Your task to perform on an android device: clear history in the chrome app Image 0: 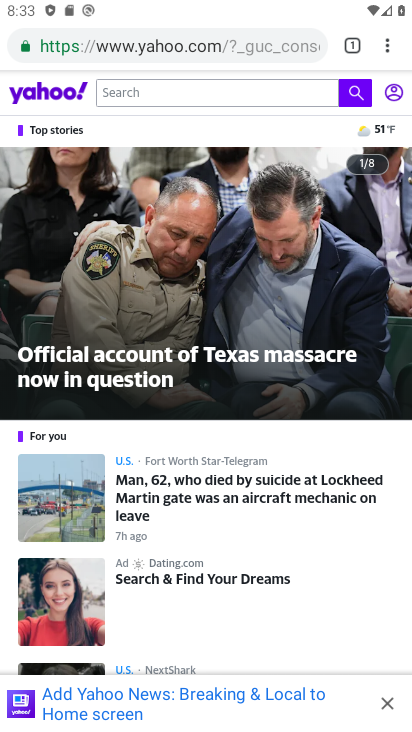
Step 0: press back button
Your task to perform on an android device: clear history in the chrome app Image 1: 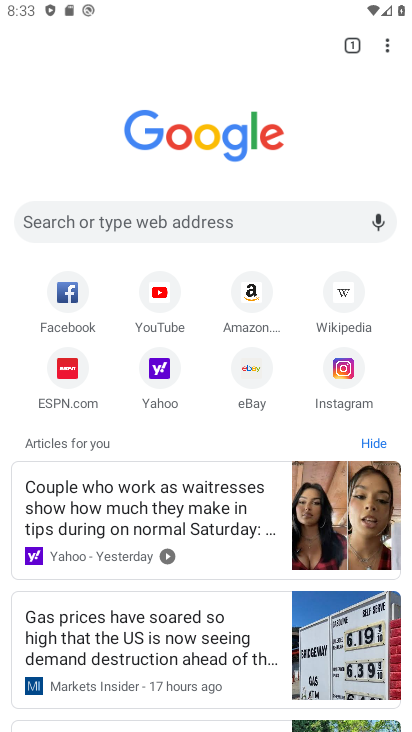
Step 1: press home button
Your task to perform on an android device: clear history in the chrome app Image 2: 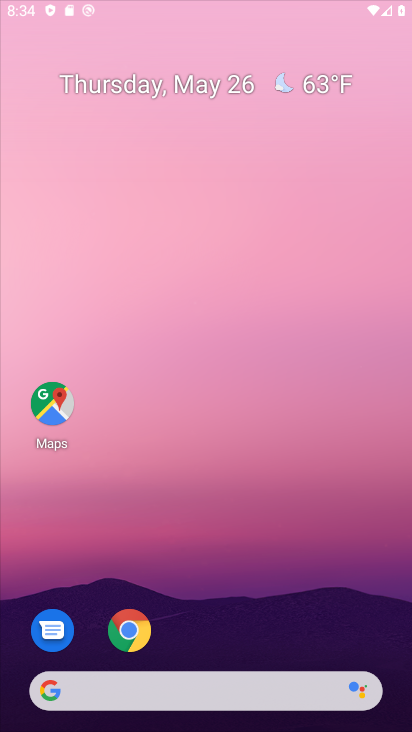
Step 2: press home button
Your task to perform on an android device: clear history in the chrome app Image 3: 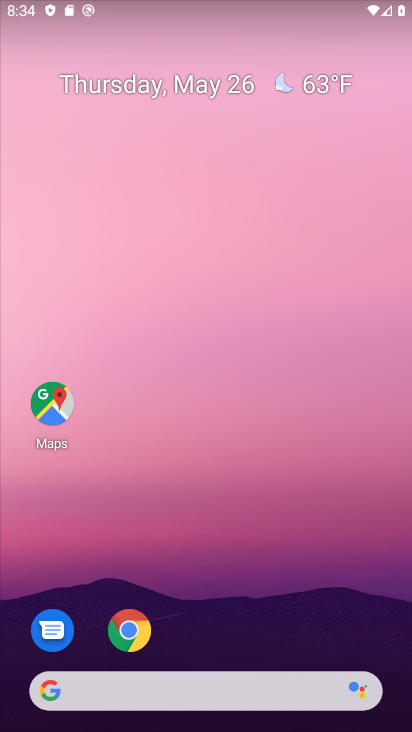
Step 3: drag from (252, 674) to (168, 200)
Your task to perform on an android device: clear history in the chrome app Image 4: 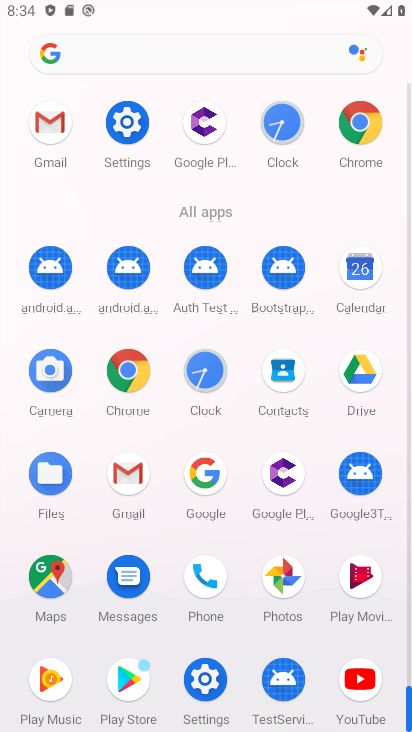
Step 4: click (352, 111)
Your task to perform on an android device: clear history in the chrome app Image 5: 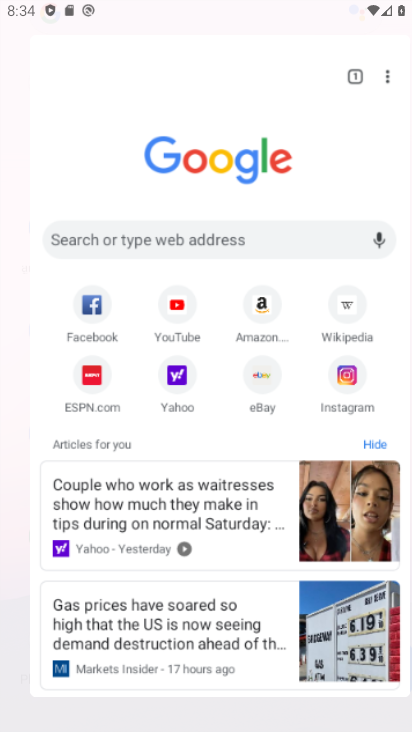
Step 5: click (355, 119)
Your task to perform on an android device: clear history in the chrome app Image 6: 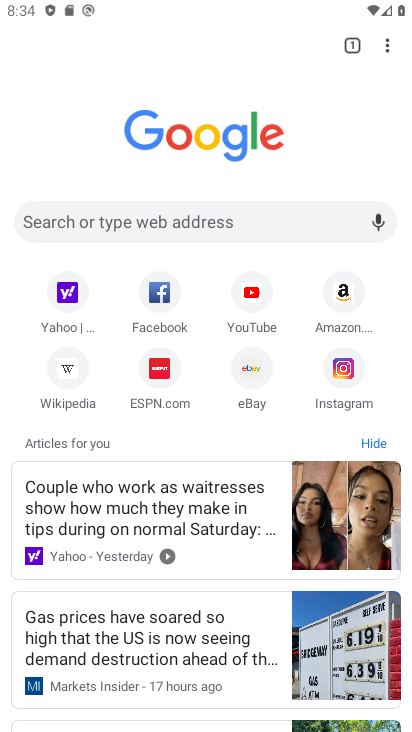
Step 6: drag from (389, 40) to (230, 249)
Your task to perform on an android device: clear history in the chrome app Image 7: 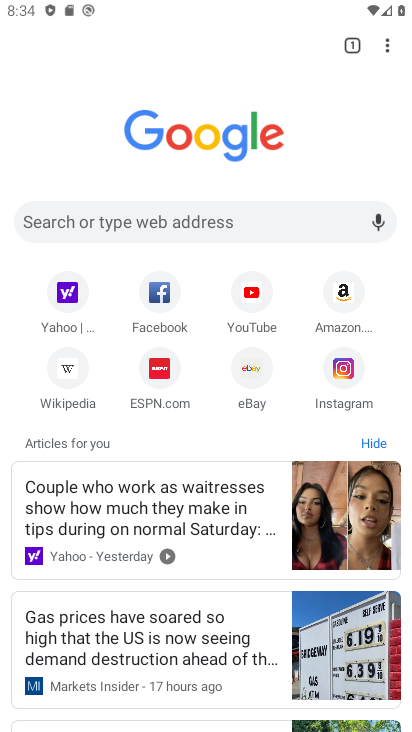
Step 7: click (231, 250)
Your task to perform on an android device: clear history in the chrome app Image 8: 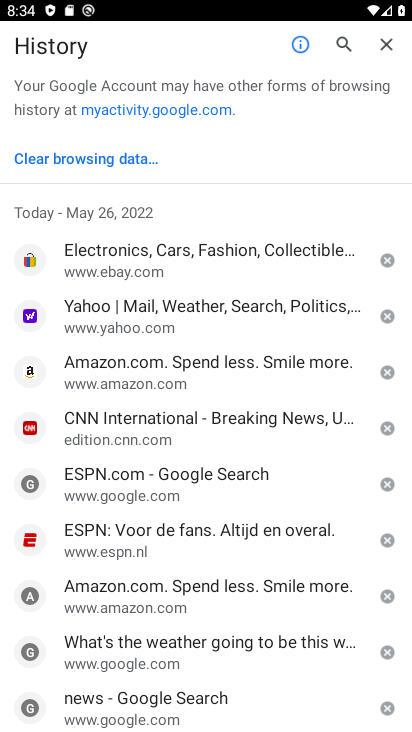
Step 8: click (98, 160)
Your task to perform on an android device: clear history in the chrome app Image 9: 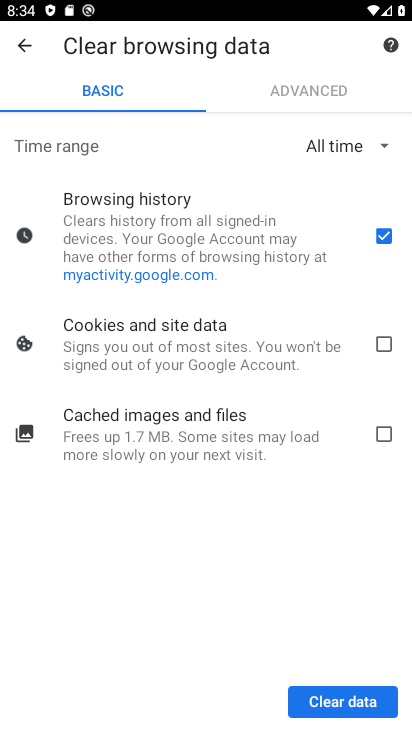
Step 9: click (348, 697)
Your task to perform on an android device: clear history in the chrome app Image 10: 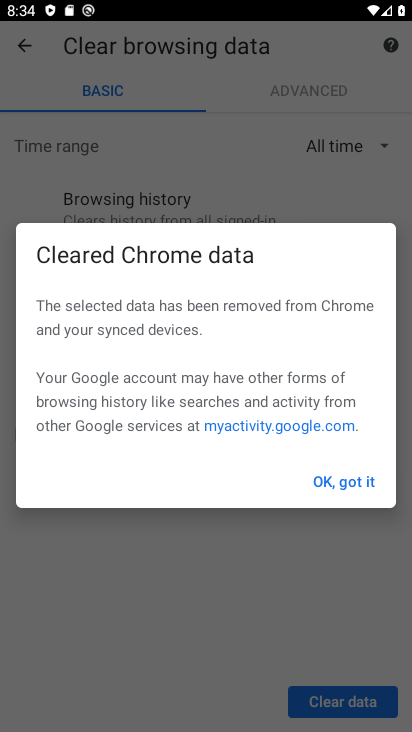
Step 10: click (345, 485)
Your task to perform on an android device: clear history in the chrome app Image 11: 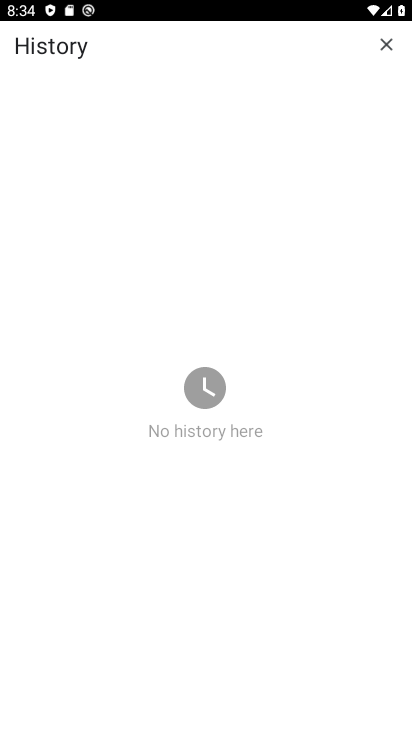
Step 11: task complete